Your task to perform on an android device: Go to Maps Image 0: 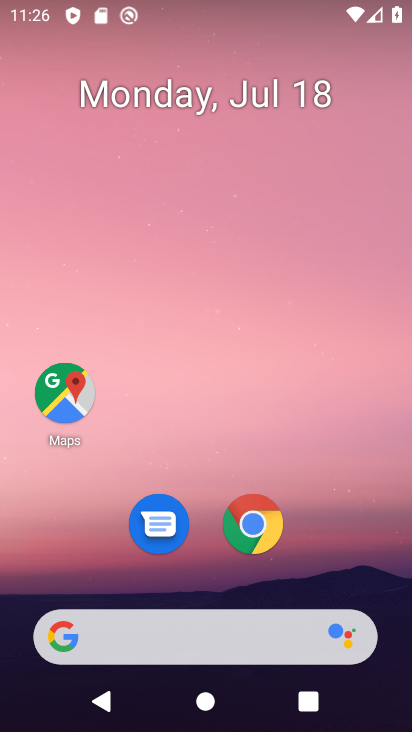
Step 0: drag from (310, 502) to (367, 50)
Your task to perform on an android device: Go to Maps Image 1: 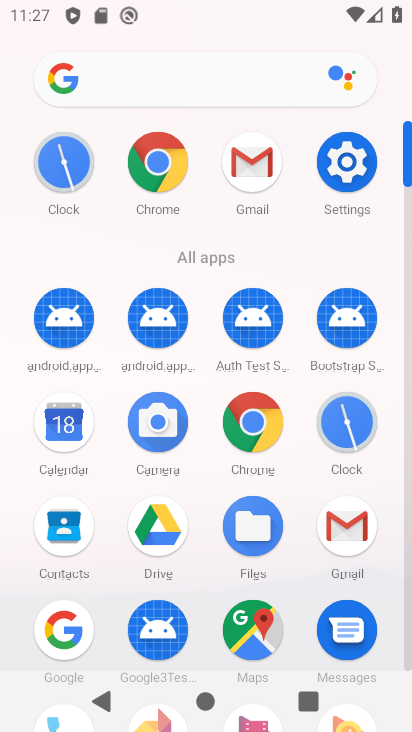
Step 1: click (245, 627)
Your task to perform on an android device: Go to Maps Image 2: 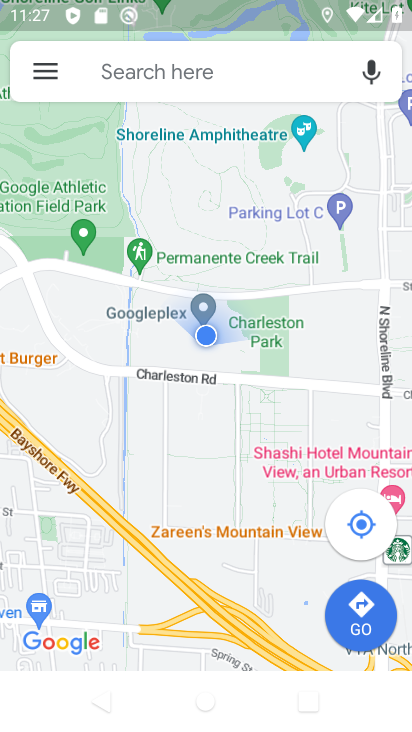
Step 2: task complete